Your task to perform on an android device: read, delete, or share a saved page in the chrome app Image 0: 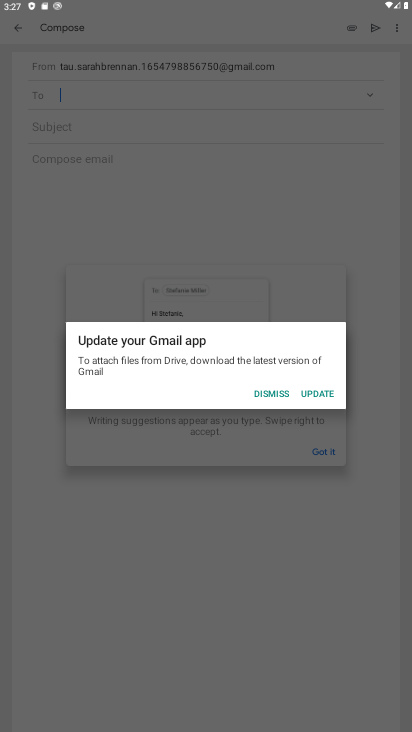
Step 0: press home button
Your task to perform on an android device: read, delete, or share a saved page in the chrome app Image 1: 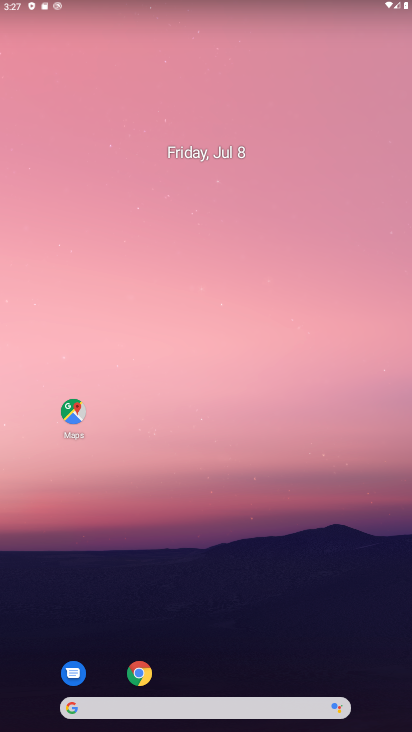
Step 1: click (138, 670)
Your task to perform on an android device: read, delete, or share a saved page in the chrome app Image 2: 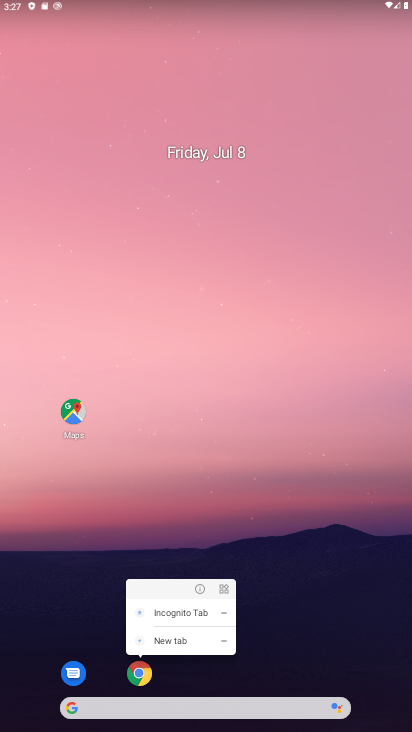
Step 2: click (145, 673)
Your task to perform on an android device: read, delete, or share a saved page in the chrome app Image 3: 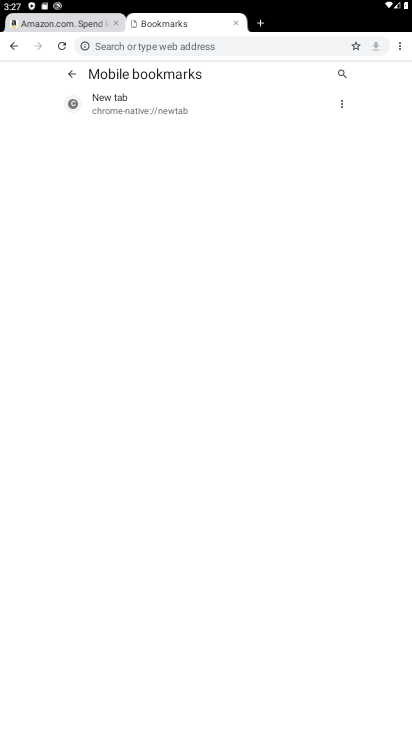
Step 3: drag from (397, 44) to (309, 164)
Your task to perform on an android device: read, delete, or share a saved page in the chrome app Image 4: 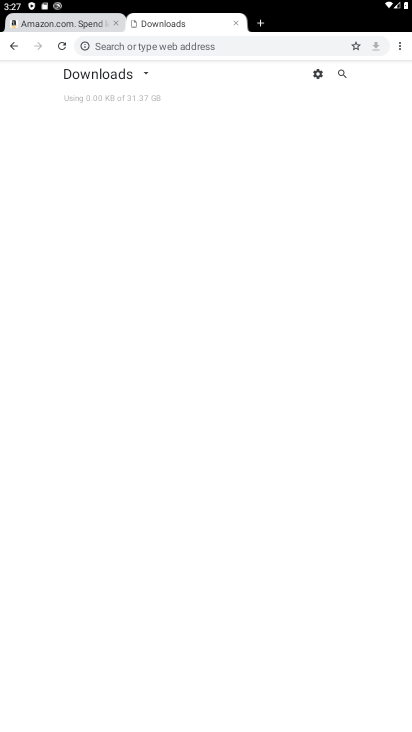
Step 4: click (144, 72)
Your task to perform on an android device: read, delete, or share a saved page in the chrome app Image 5: 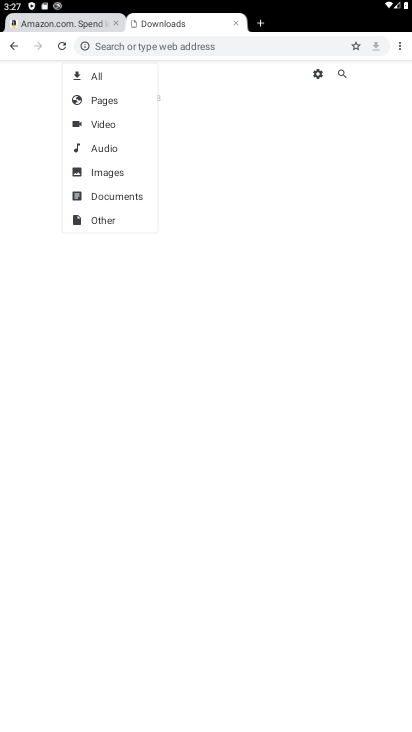
Step 5: click (116, 95)
Your task to perform on an android device: read, delete, or share a saved page in the chrome app Image 6: 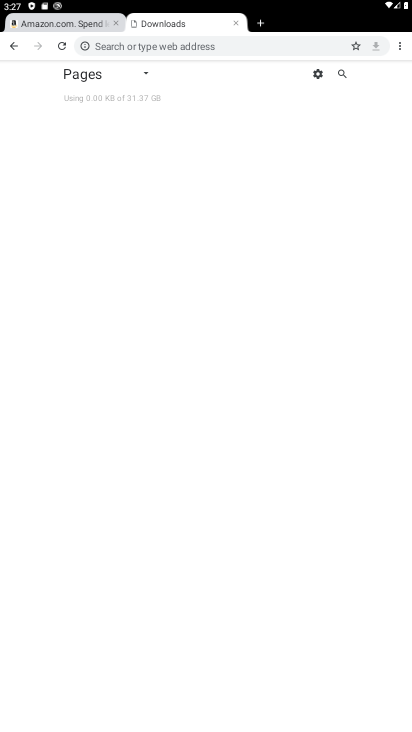
Step 6: task complete